Your task to perform on an android device: Show me popular videos on Youtube Image 0: 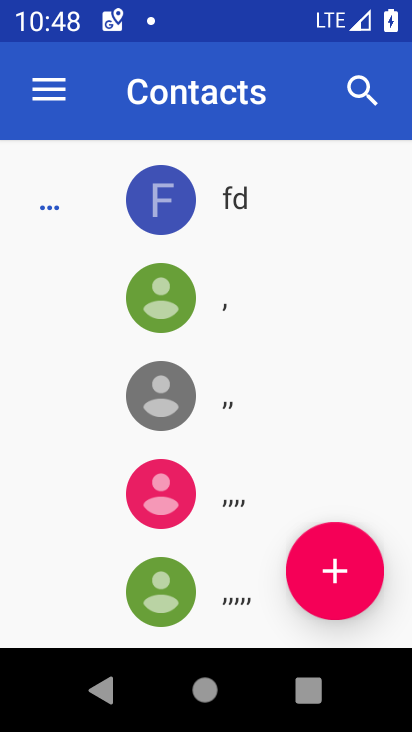
Step 0: press home button
Your task to perform on an android device: Show me popular videos on Youtube Image 1: 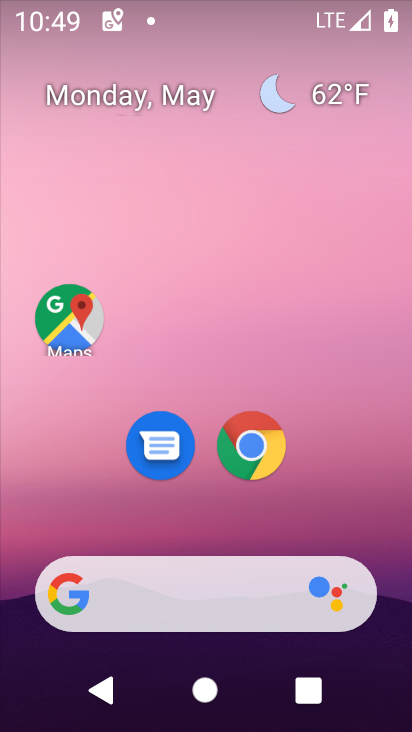
Step 1: drag from (381, 645) to (354, 114)
Your task to perform on an android device: Show me popular videos on Youtube Image 2: 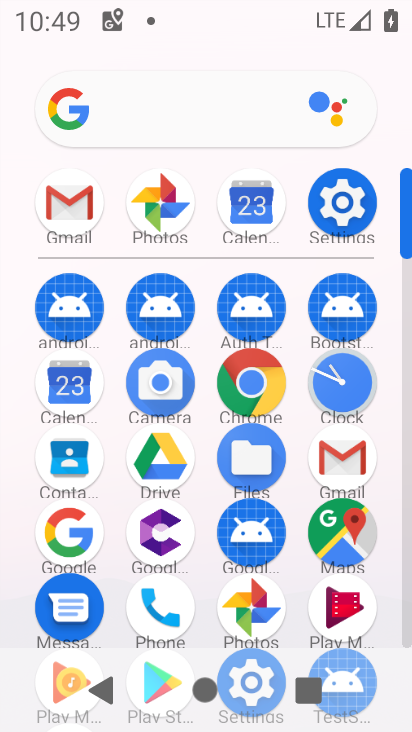
Step 2: drag from (301, 619) to (289, 246)
Your task to perform on an android device: Show me popular videos on Youtube Image 3: 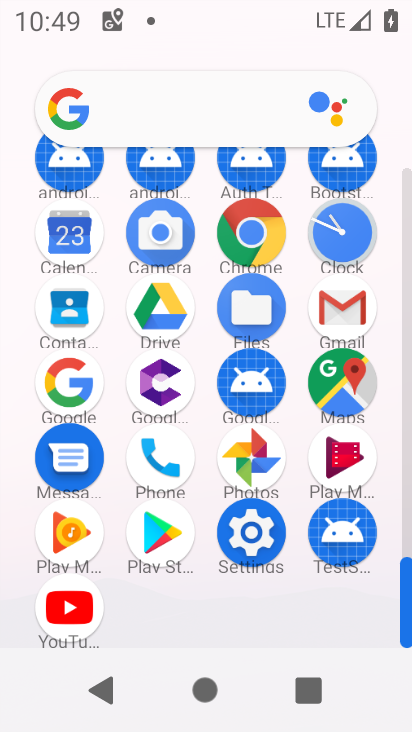
Step 3: click (73, 596)
Your task to perform on an android device: Show me popular videos on Youtube Image 4: 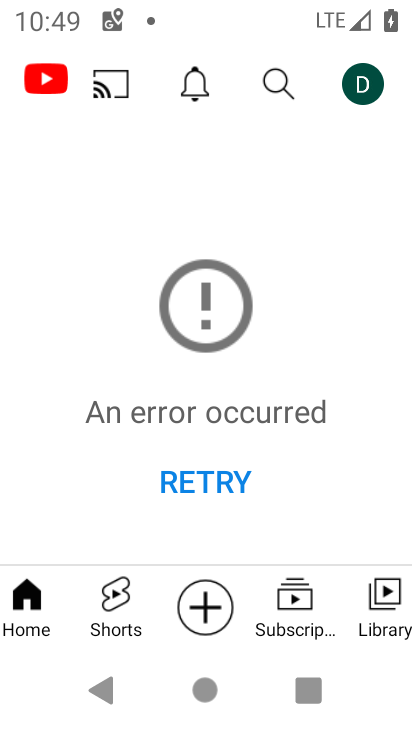
Step 4: task complete